Your task to perform on an android device: visit the assistant section in the google photos Image 0: 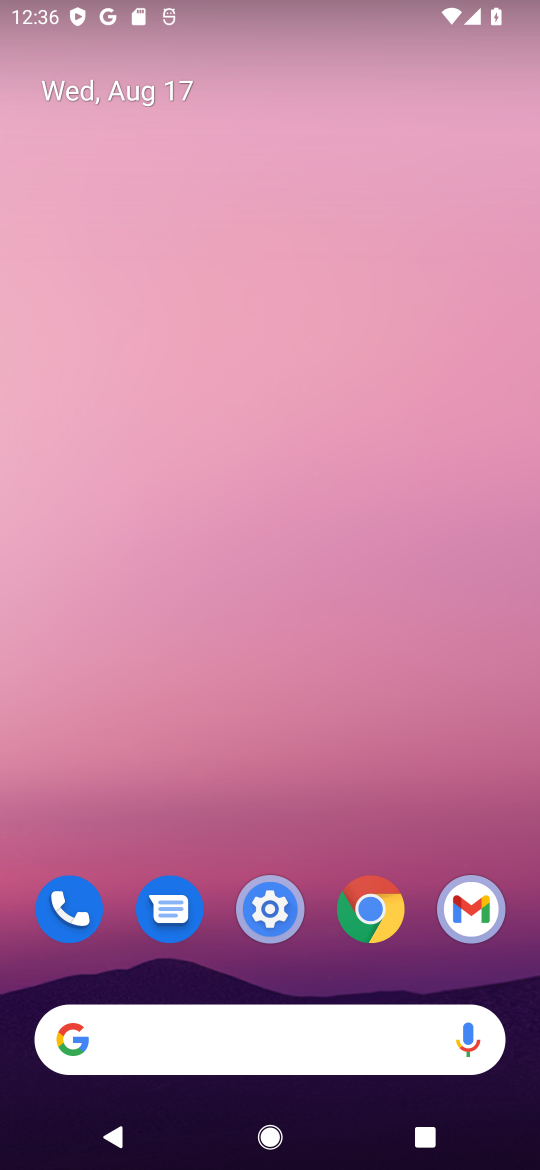
Step 0: drag from (273, 793) to (243, 186)
Your task to perform on an android device: visit the assistant section in the google photos Image 1: 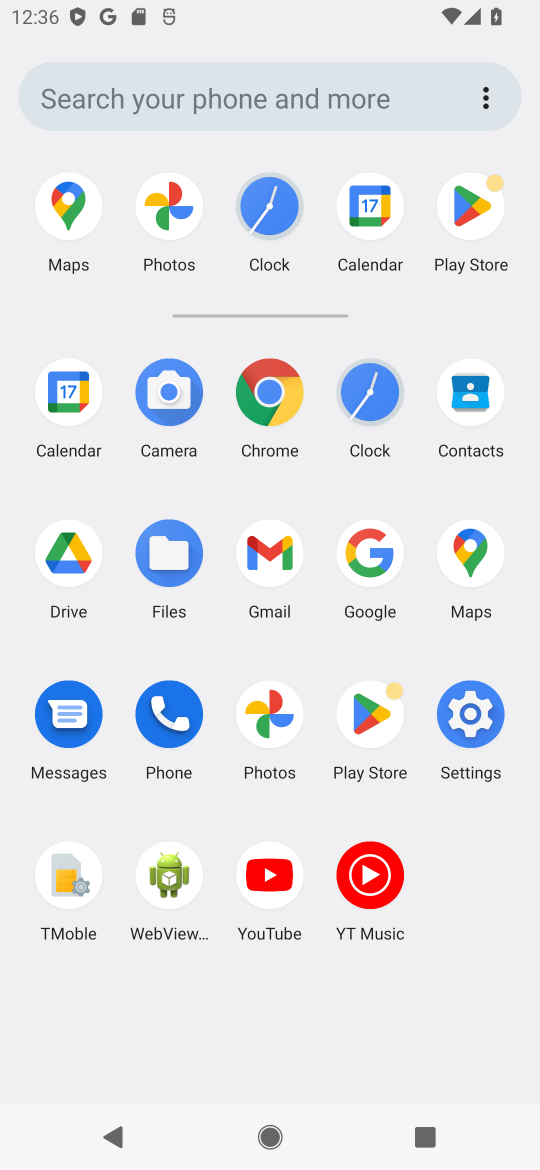
Step 1: click (170, 201)
Your task to perform on an android device: visit the assistant section in the google photos Image 2: 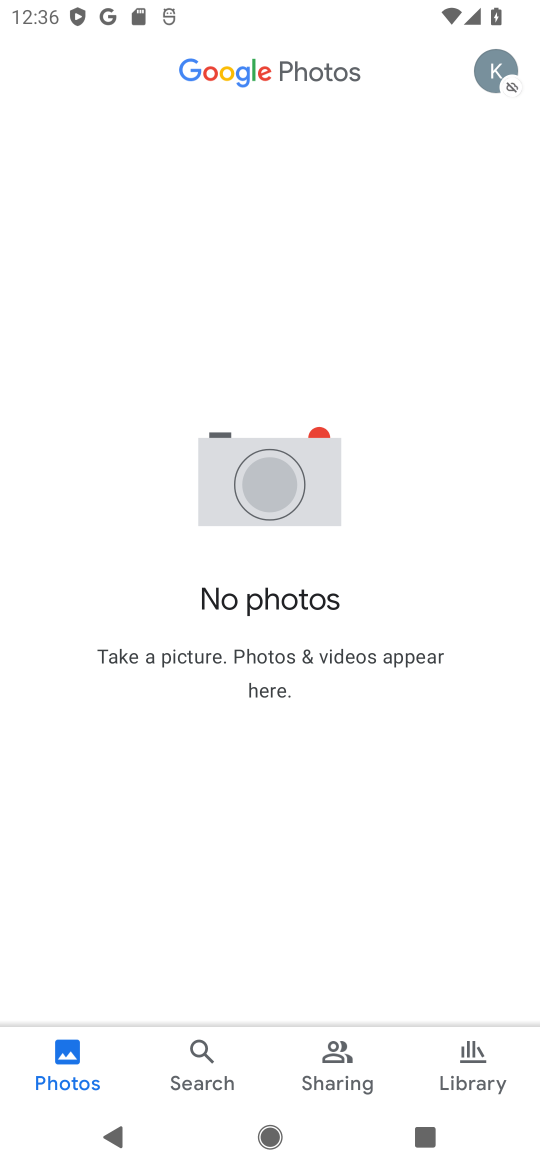
Step 2: click (194, 1058)
Your task to perform on an android device: visit the assistant section in the google photos Image 3: 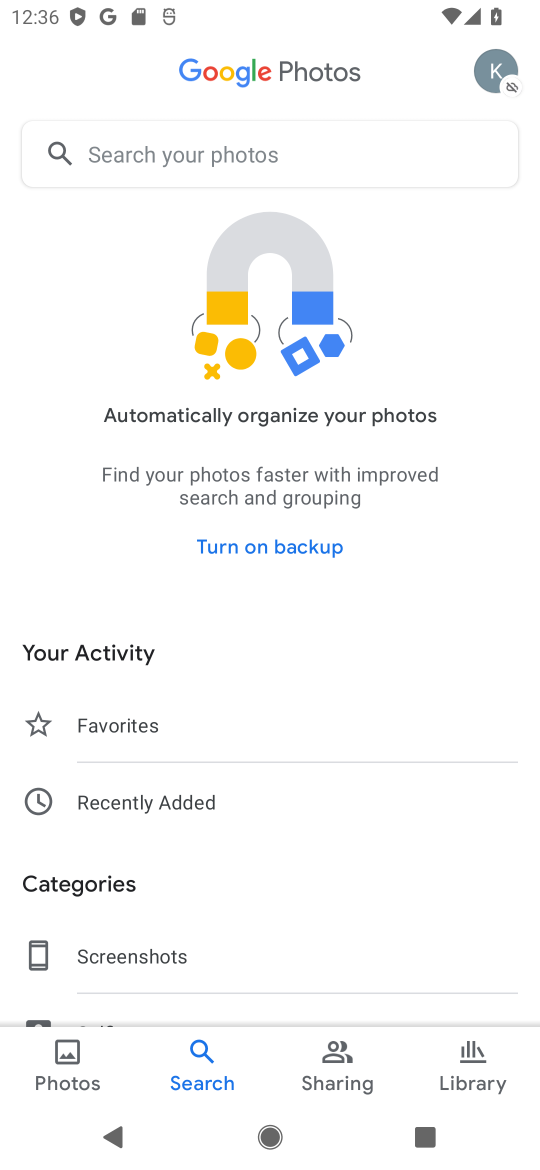
Step 3: drag from (214, 913) to (188, 476)
Your task to perform on an android device: visit the assistant section in the google photos Image 4: 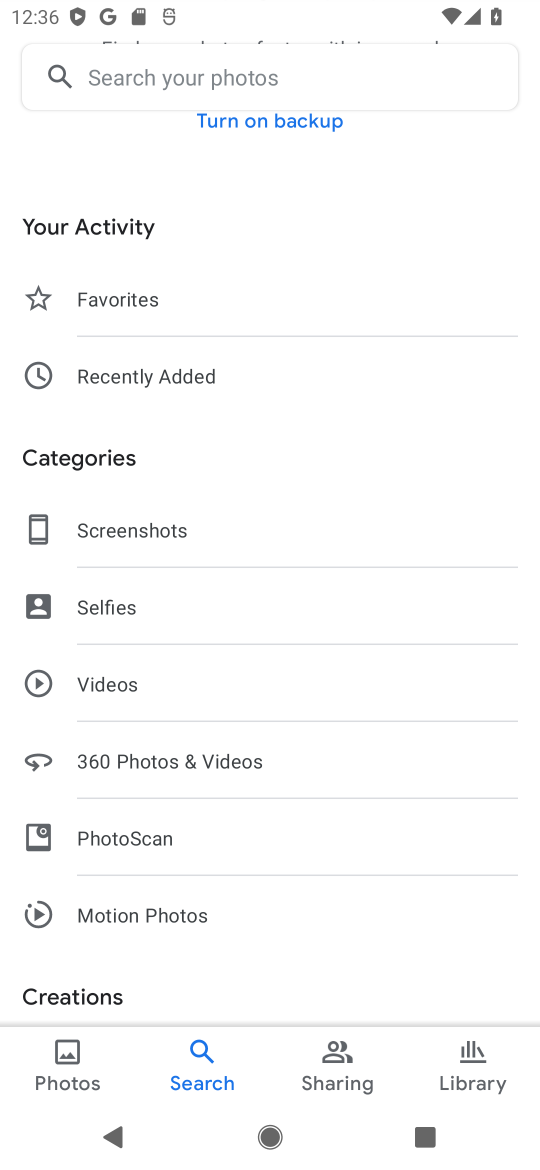
Step 4: drag from (258, 860) to (225, 499)
Your task to perform on an android device: visit the assistant section in the google photos Image 5: 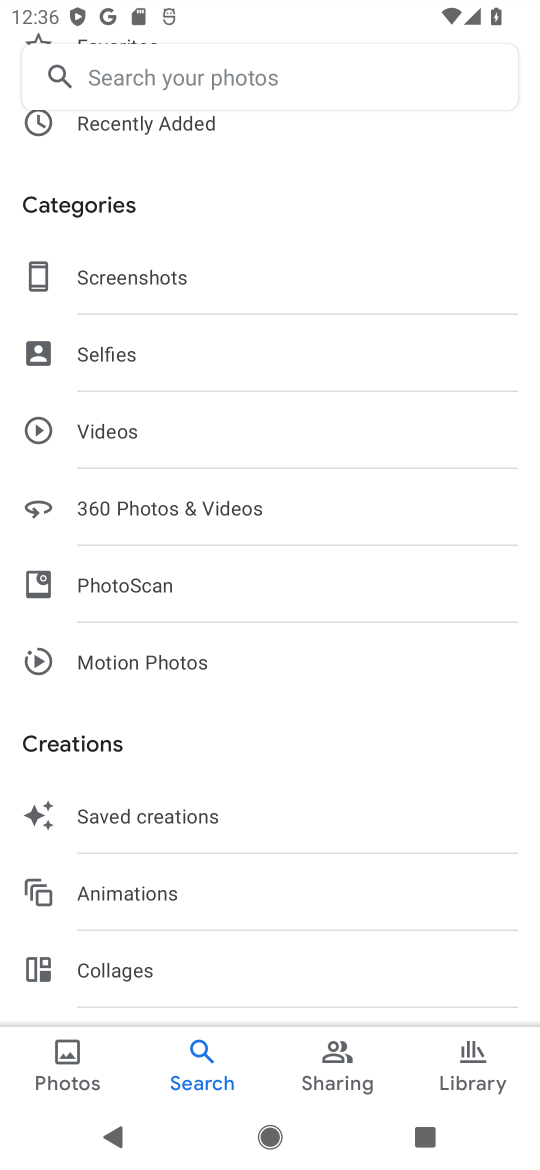
Step 5: click (211, 73)
Your task to perform on an android device: visit the assistant section in the google photos Image 6: 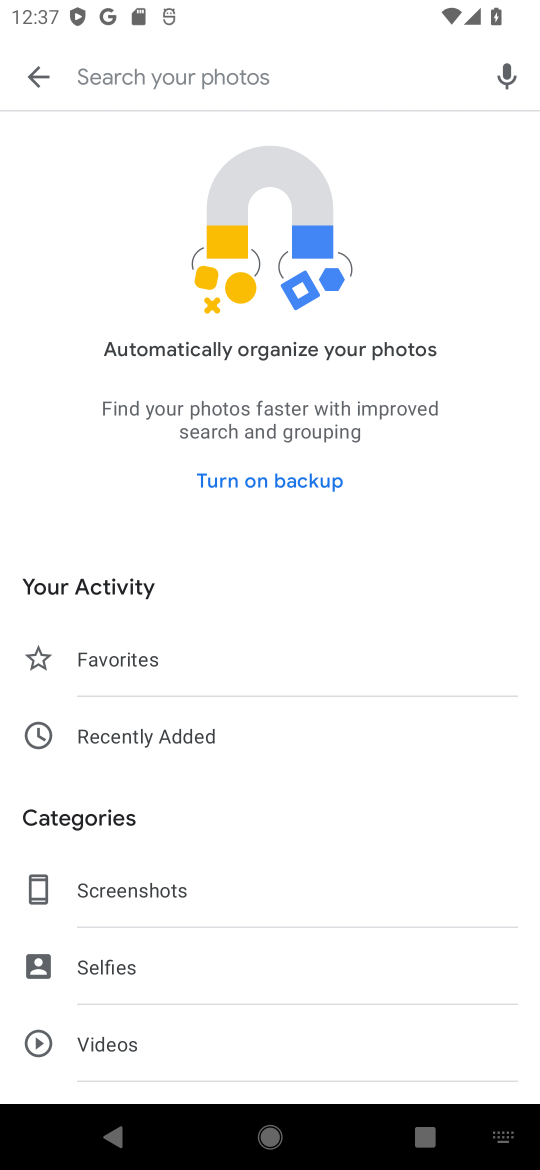
Step 6: type "assistant section"
Your task to perform on an android device: visit the assistant section in the google photos Image 7: 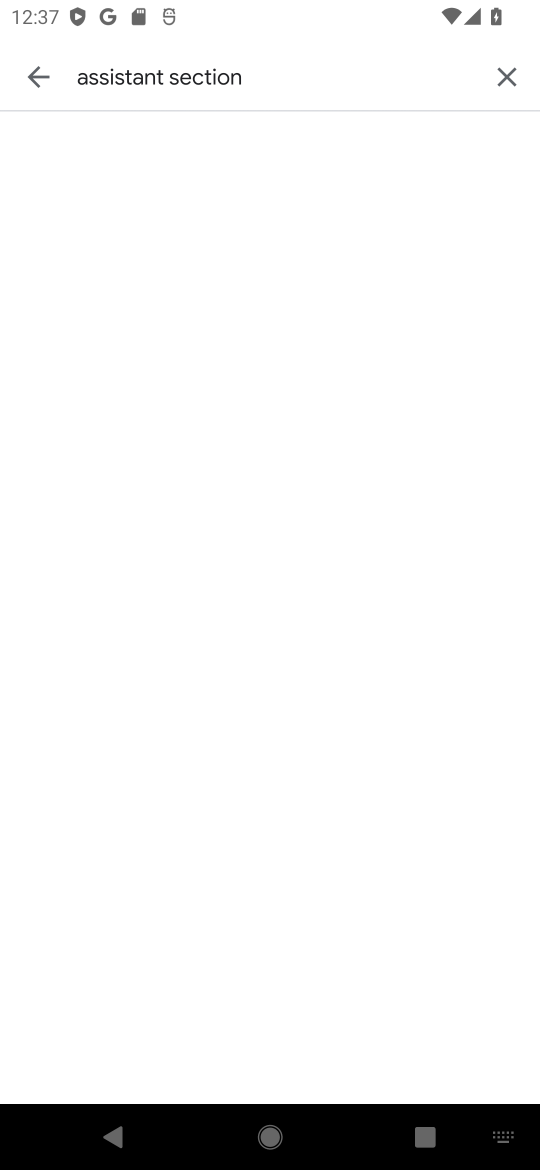
Step 7: task complete